Your task to perform on an android device: check battery use Image 0: 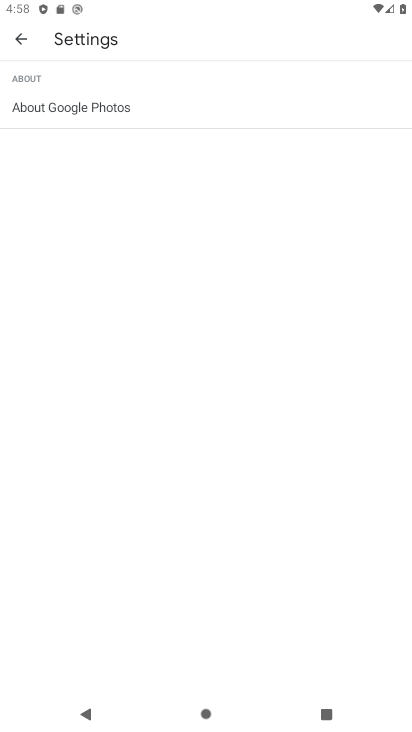
Step 0: press home button
Your task to perform on an android device: check battery use Image 1: 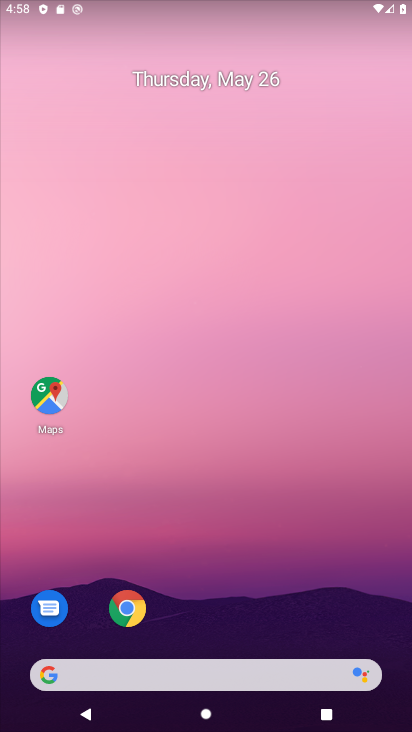
Step 1: drag from (196, 609) to (235, 125)
Your task to perform on an android device: check battery use Image 2: 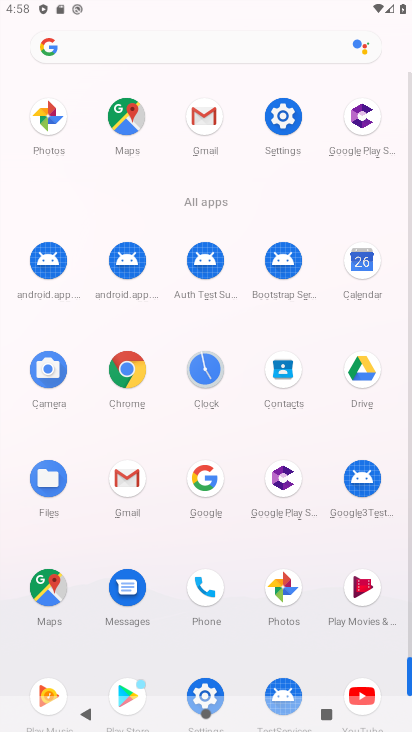
Step 2: drag from (133, 604) to (236, 233)
Your task to perform on an android device: check battery use Image 3: 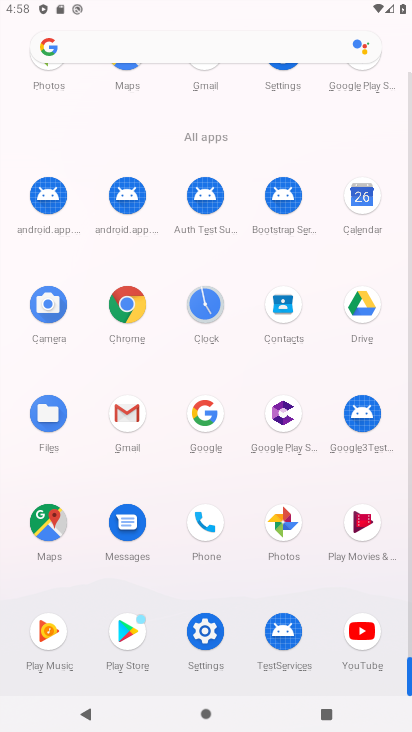
Step 3: click (207, 646)
Your task to perform on an android device: check battery use Image 4: 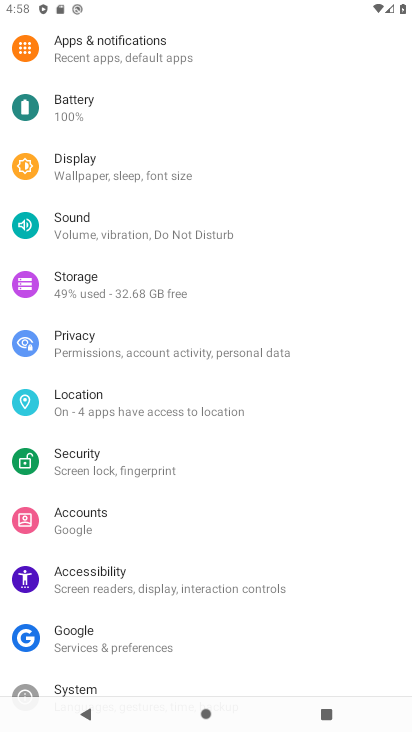
Step 4: drag from (211, 218) to (192, 566)
Your task to perform on an android device: check battery use Image 5: 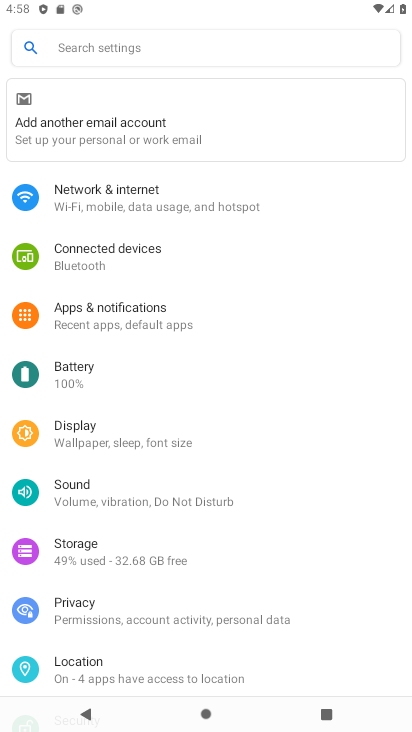
Step 5: click (144, 382)
Your task to perform on an android device: check battery use Image 6: 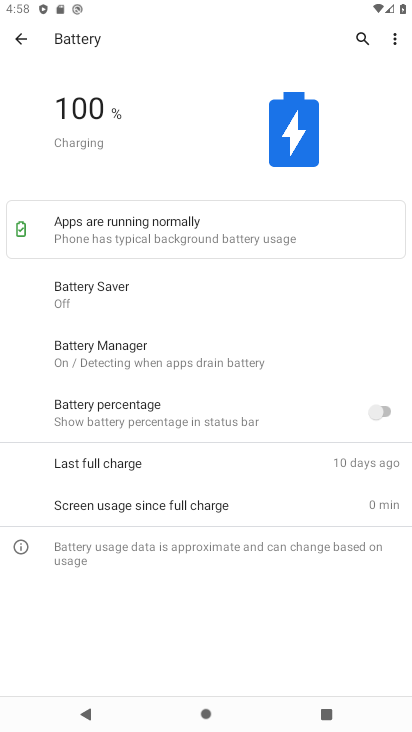
Step 6: click (398, 21)
Your task to perform on an android device: check battery use Image 7: 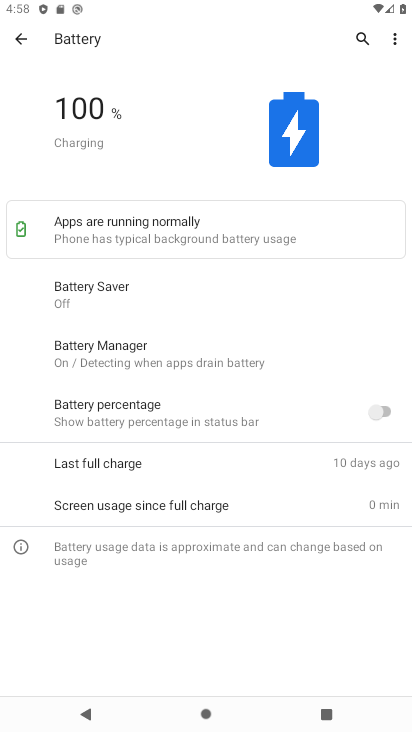
Step 7: click (397, 33)
Your task to perform on an android device: check battery use Image 8: 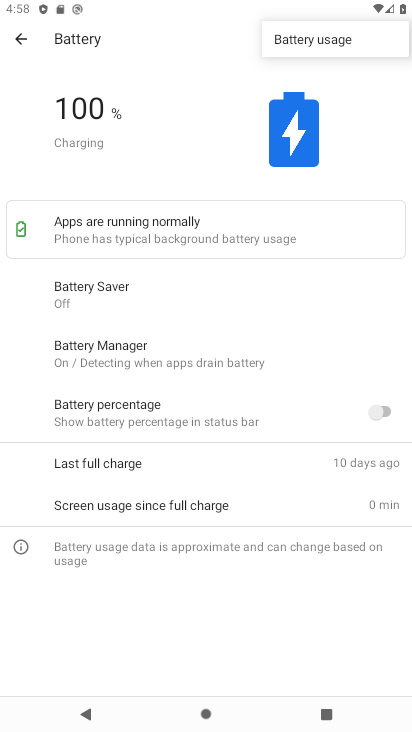
Step 8: click (370, 49)
Your task to perform on an android device: check battery use Image 9: 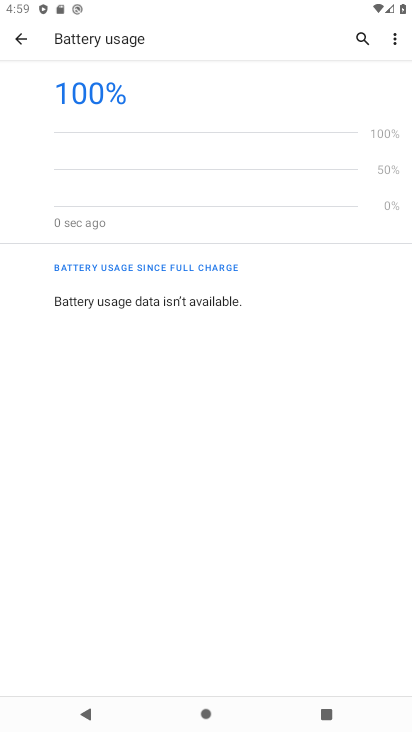
Step 9: task complete